Your task to perform on an android device: turn smart compose on in the gmail app Image 0: 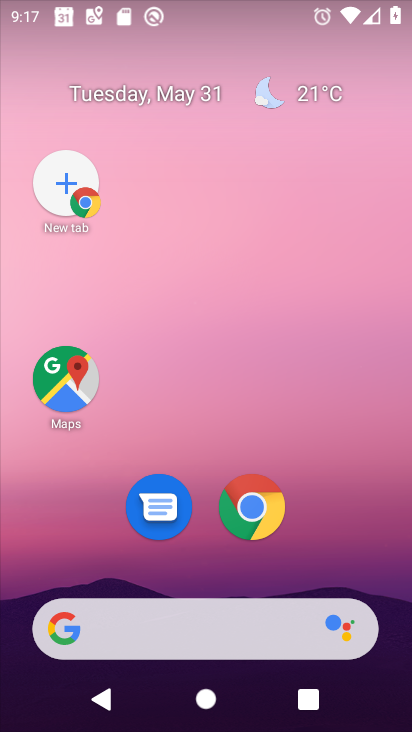
Step 0: drag from (273, 385) to (204, 63)
Your task to perform on an android device: turn smart compose on in the gmail app Image 1: 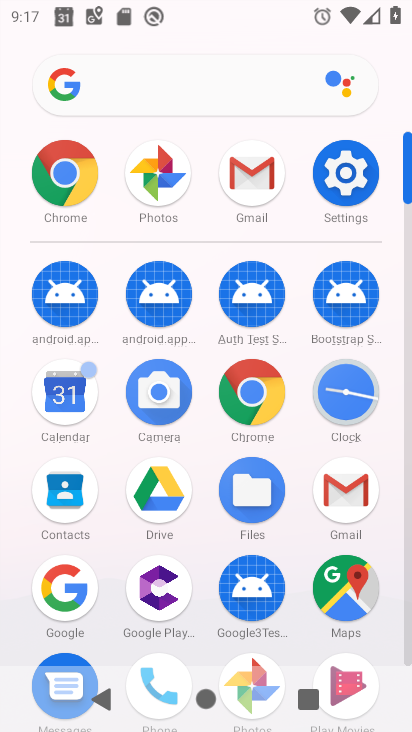
Step 1: click (349, 504)
Your task to perform on an android device: turn smart compose on in the gmail app Image 2: 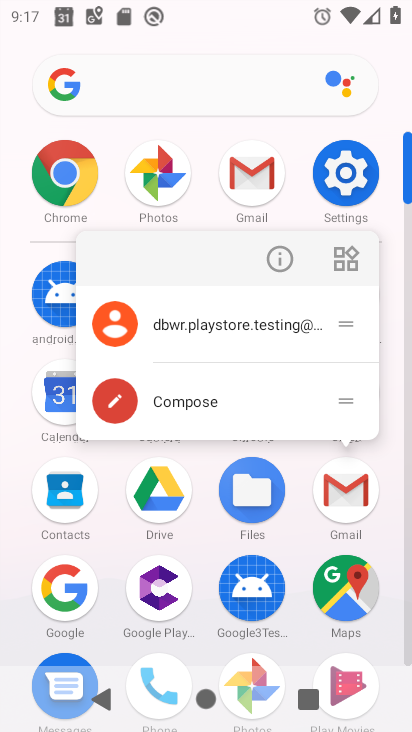
Step 2: click (346, 498)
Your task to perform on an android device: turn smart compose on in the gmail app Image 3: 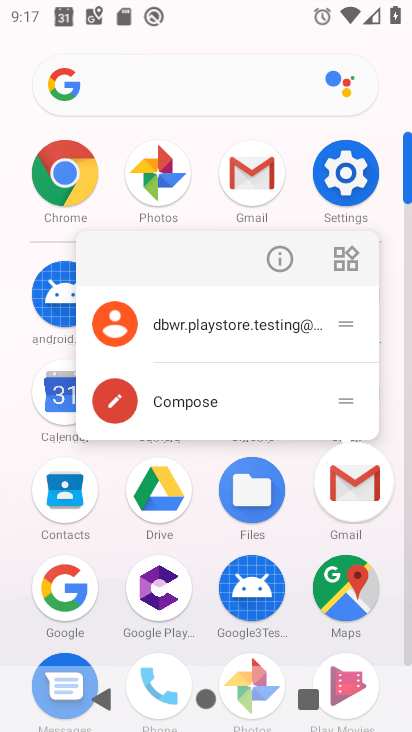
Step 3: click (354, 490)
Your task to perform on an android device: turn smart compose on in the gmail app Image 4: 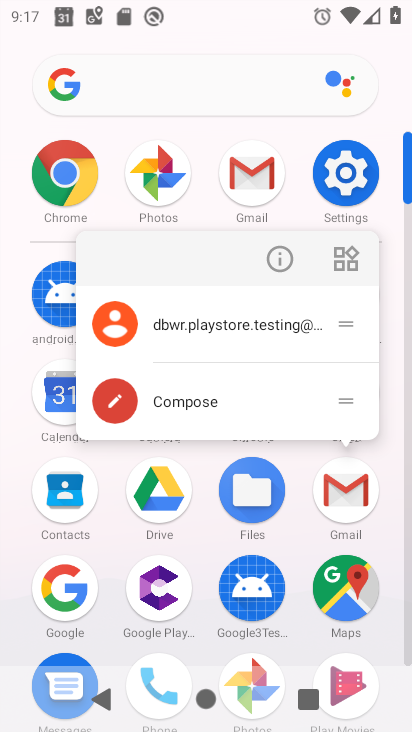
Step 4: click (354, 490)
Your task to perform on an android device: turn smart compose on in the gmail app Image 5: 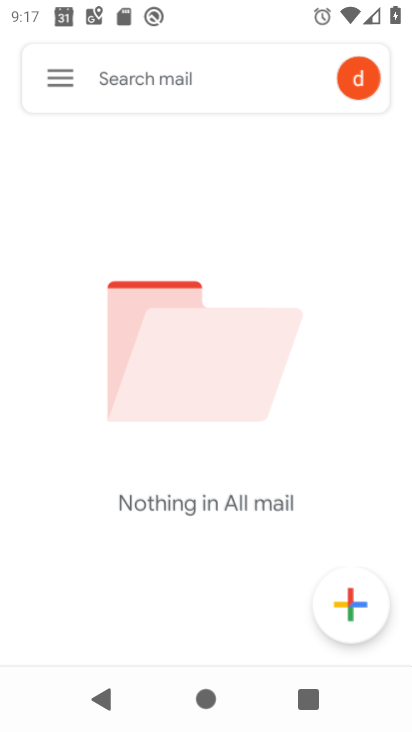
Step 5: click (354, 490)
Your task to perform on an android device: turn smart compose on in the gmail app Image 6: 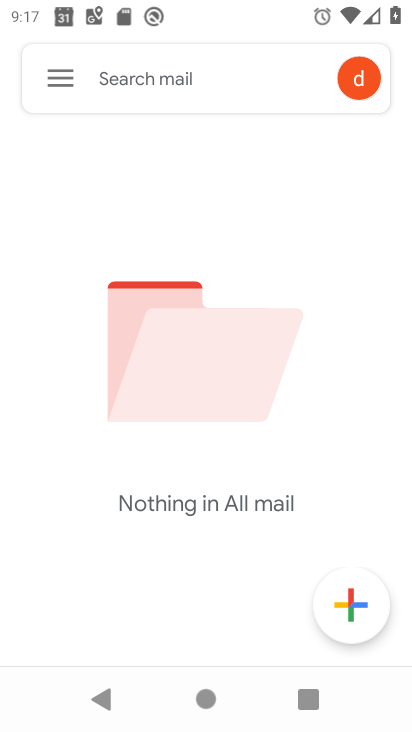
Step 6: click (58, 81)
Your task to perform on an android device: turn smart compose on in the gmail app Image 7: 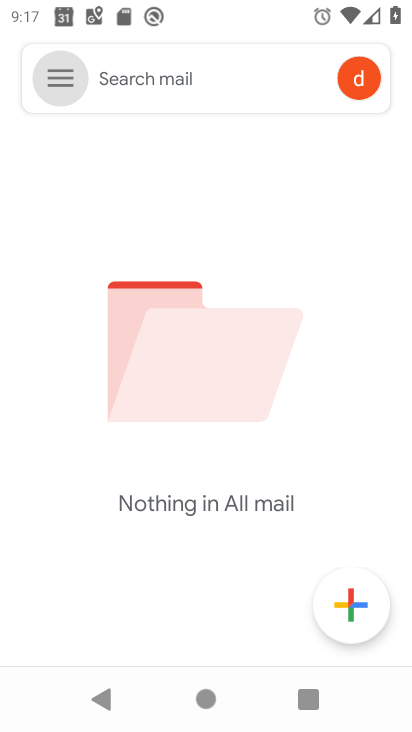
Step 7: click (58, 81)
Your task to perform on an android device: turn smart compose on in the gmail app Image 8: 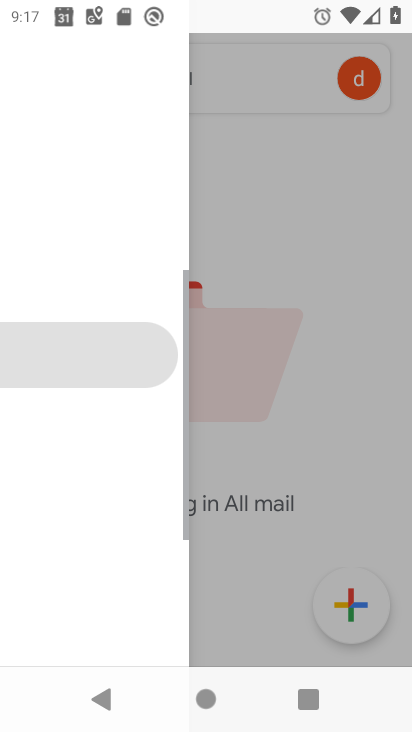
Step 8: click (58, 81)
Your task to perform on an android device: turn smart compose on in the gmail app Image 9: 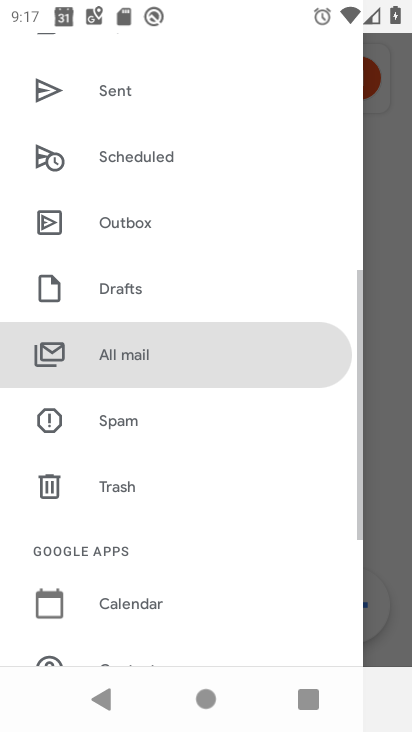
Step 9: drag from (148, 564) to (98, 12)
Your task to perform on an android device: turn smart compose on in the gmail app Image 10: 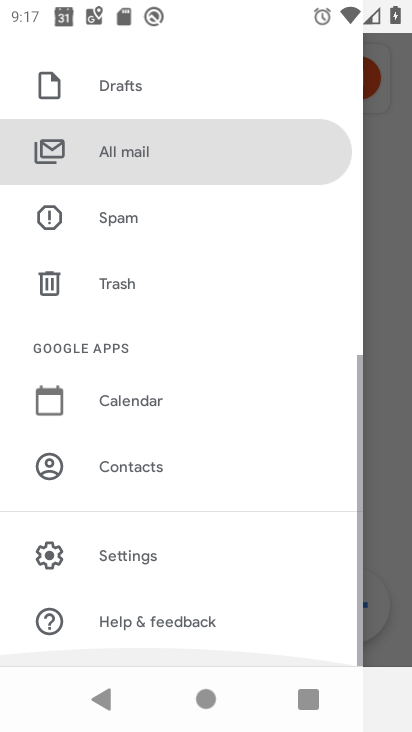
Step 10: drag from (165, 328) to (196, 101)
Your task to perform on an android device: turn smart compose on in the gmail app Image 11: 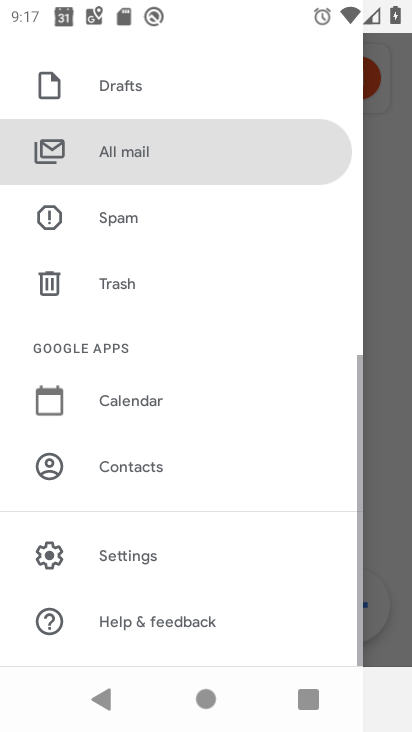
Step 11: click (132, 567)
Your task to perform on an android device: turn smart compose on in the gmail app Image 12: 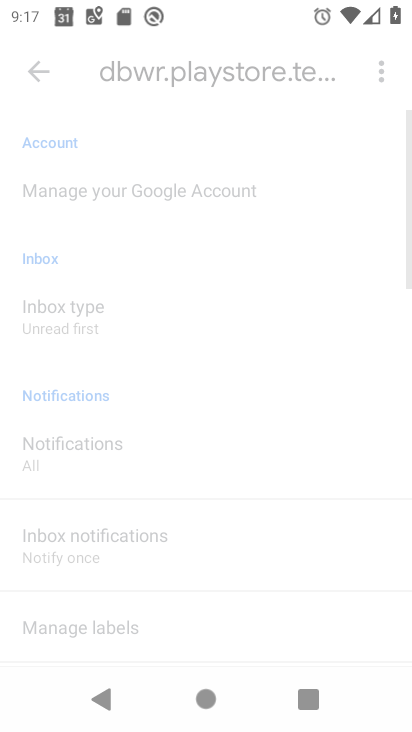
Step 12: click (132, 558)
Your task to perform on an android device: turn smart compose on in the gmail app Image 13: 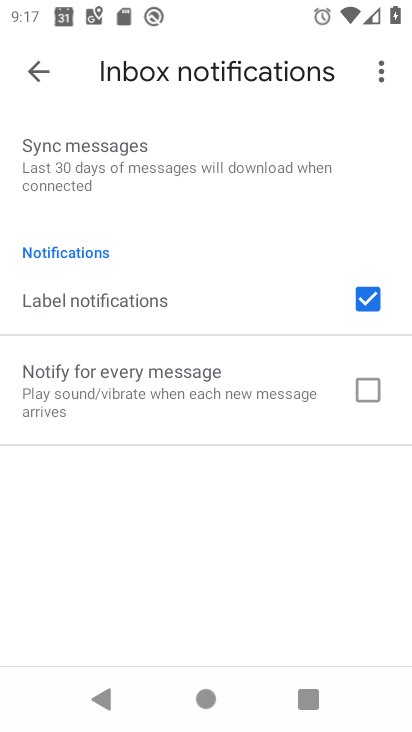
Step 13: click (38, 68)
Your task to perform on an android device: turn smart compose on in the gmail app Image 14: 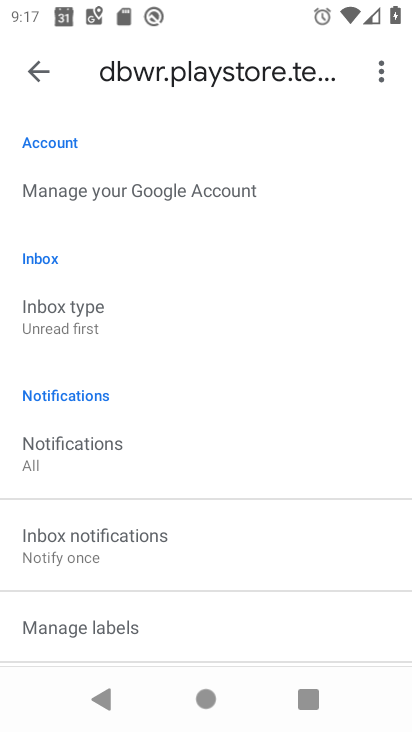
Step 14: task complete